Your task to perform on an android device: Open the phone app and click the voicemail tab. Image 0: 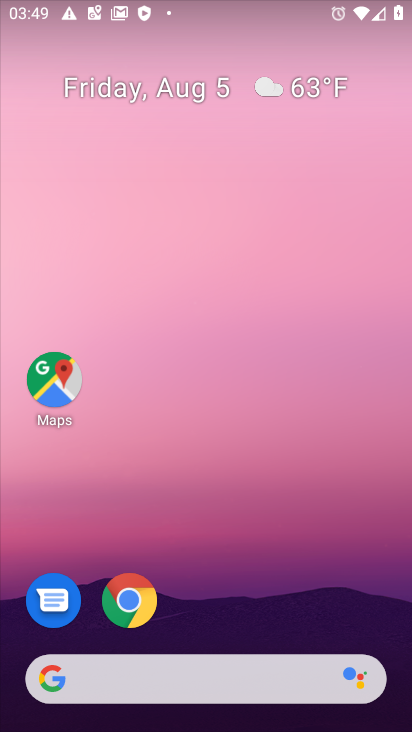
Step 0: drag from (182, 691) to (252, 112)
Your task to perform on an android device: Open the phone app and click the voicemail tab. Image 1: 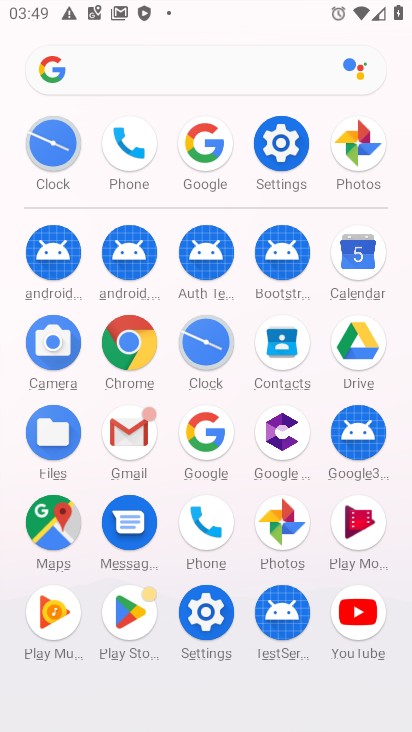
Step 1: click (123, 148)
Your task to perform on an android device: Open the phone app and click the voicemail tab. Image 2: 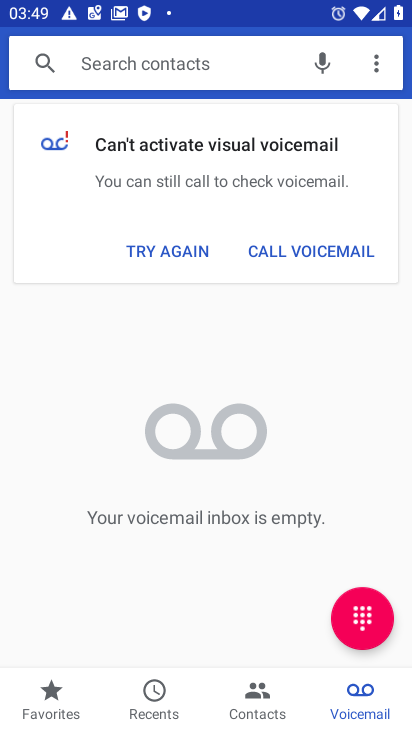
Step 2: click (367, 694)
Your task to perform on an android device: Open the phone app and click the voicemail tab. Image 3: 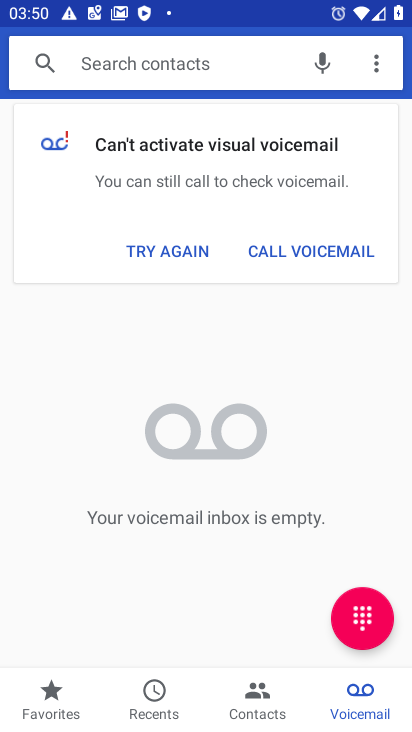
Step 3: task complete